Your task to perform on an android device: Turn off the flashlight Image 0: 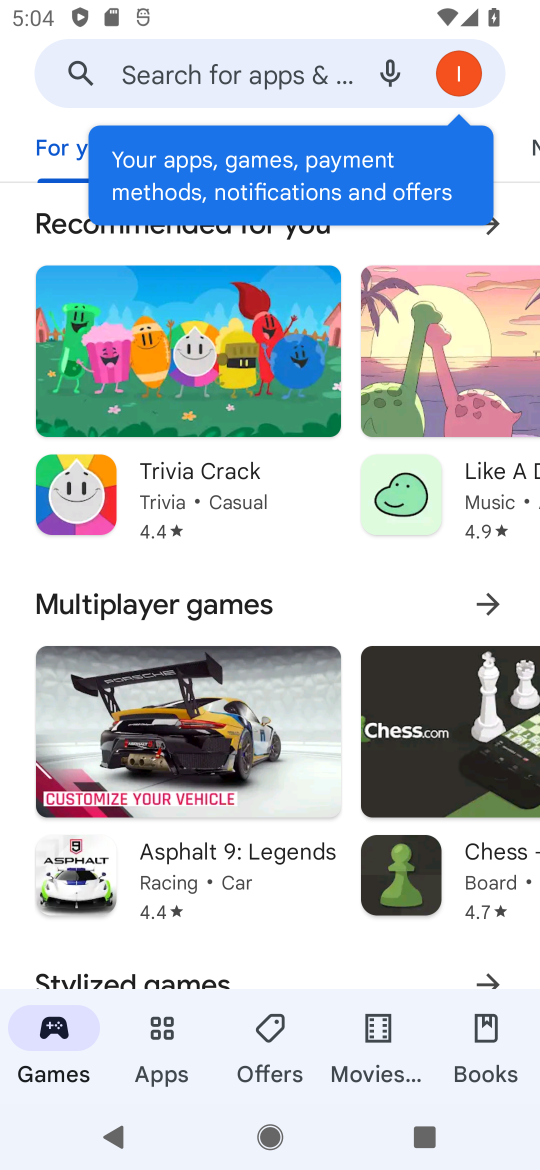
Step 0: press home button
Your task to perform on an android device: Turn off the flashlight Image 1: 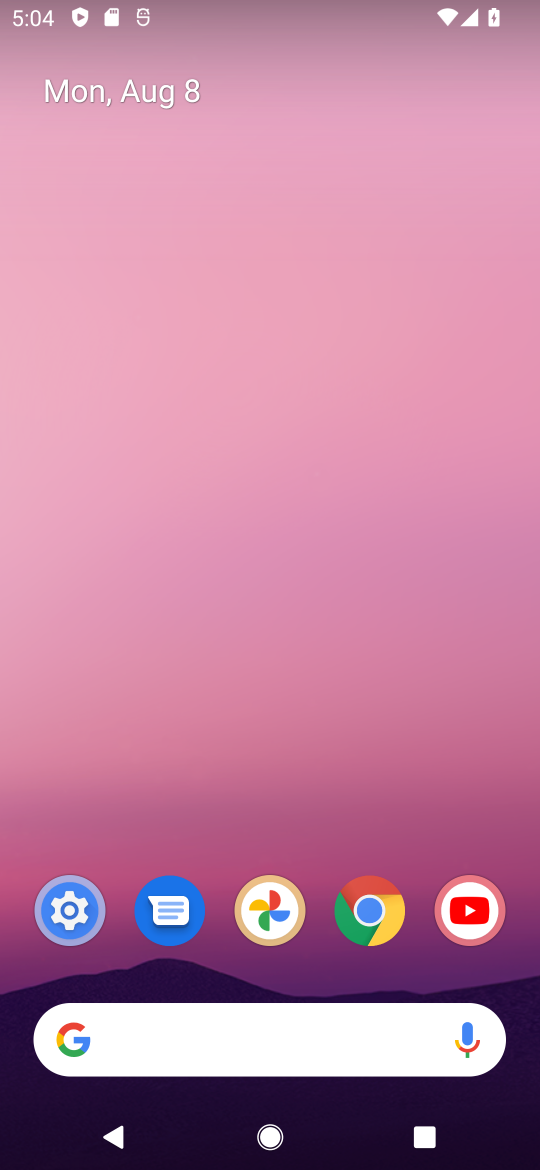
Step 1: drag from (204, 1030) to (434, 373)
Your task to perform on an android device: Turn off the flashlight Image 2: 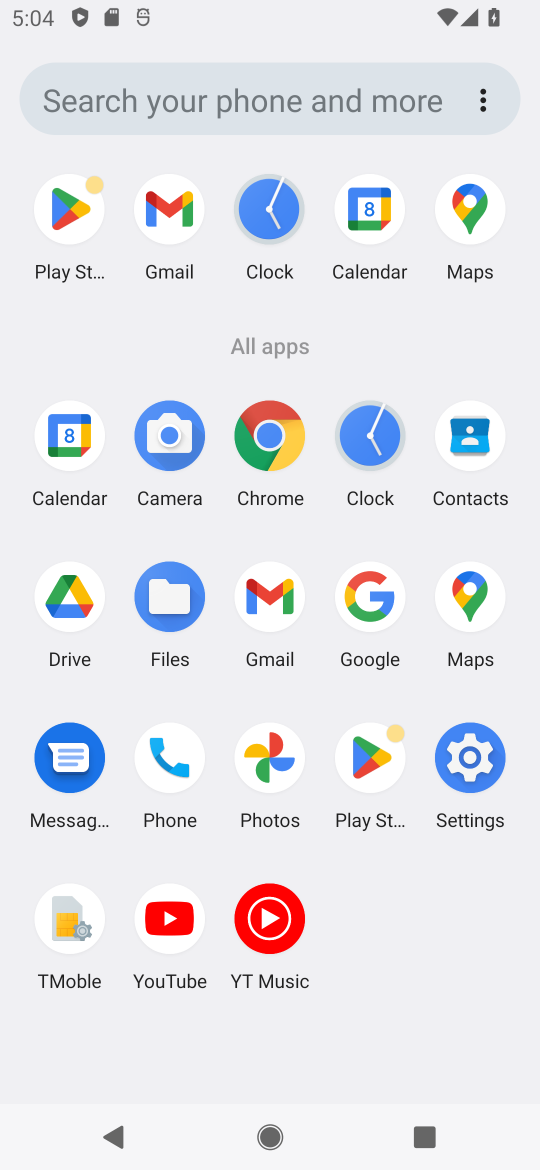
Step 2: click (471, 762)
Your task to perform on an android device: Turn off the flashlight Image 3: 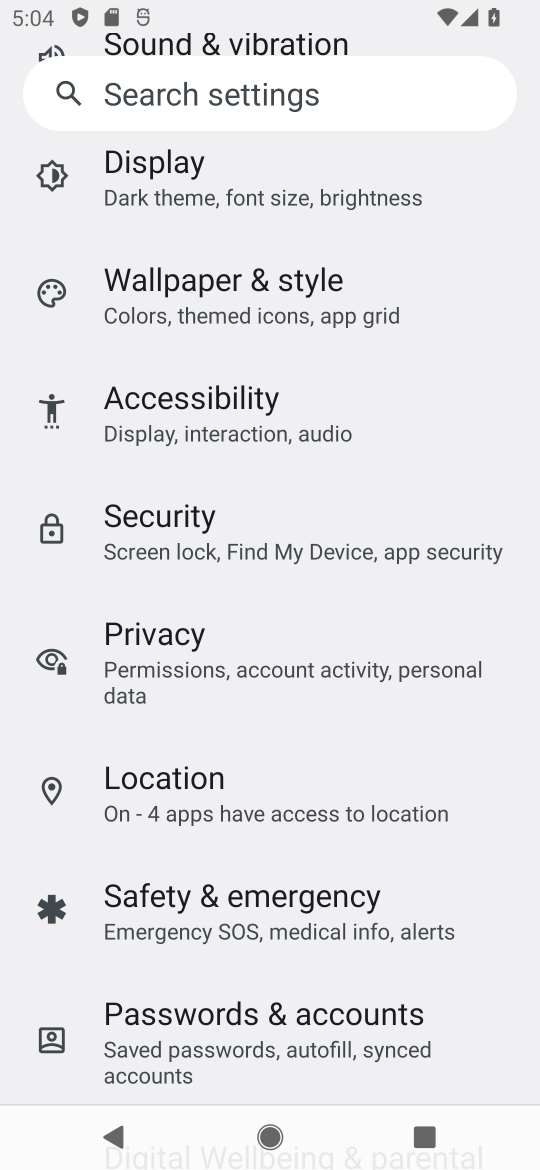
Step 3: drag from (291, 232) to (305, 820)
Your task to perform on an android device: Turn off the flashlight Image 4: 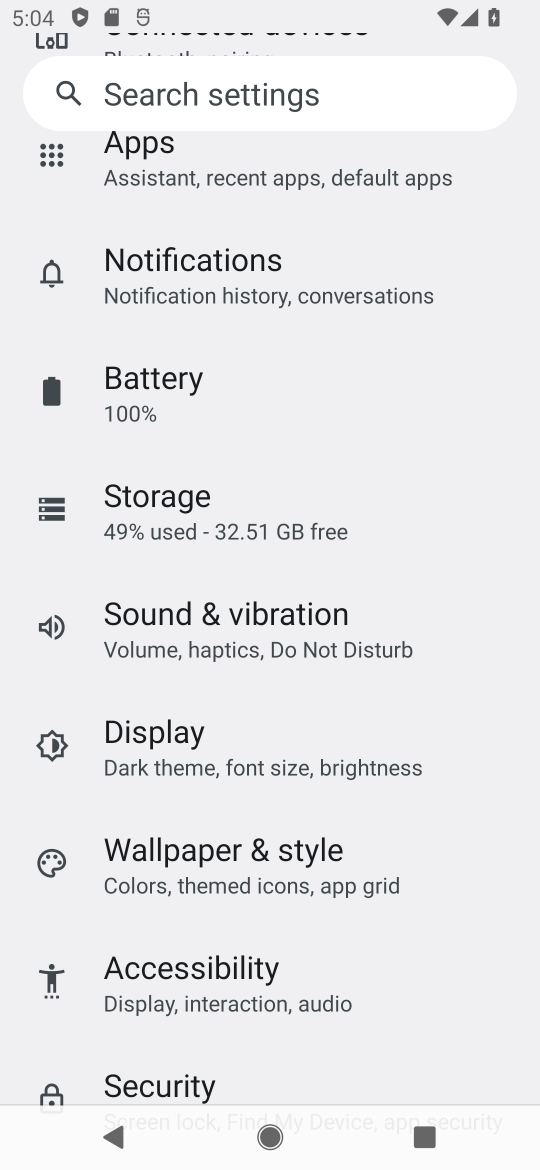
Step 4: drag from (273, 330) to (296, 671)
Your task to perform on an android device: Turn off the flashlight Image 5: 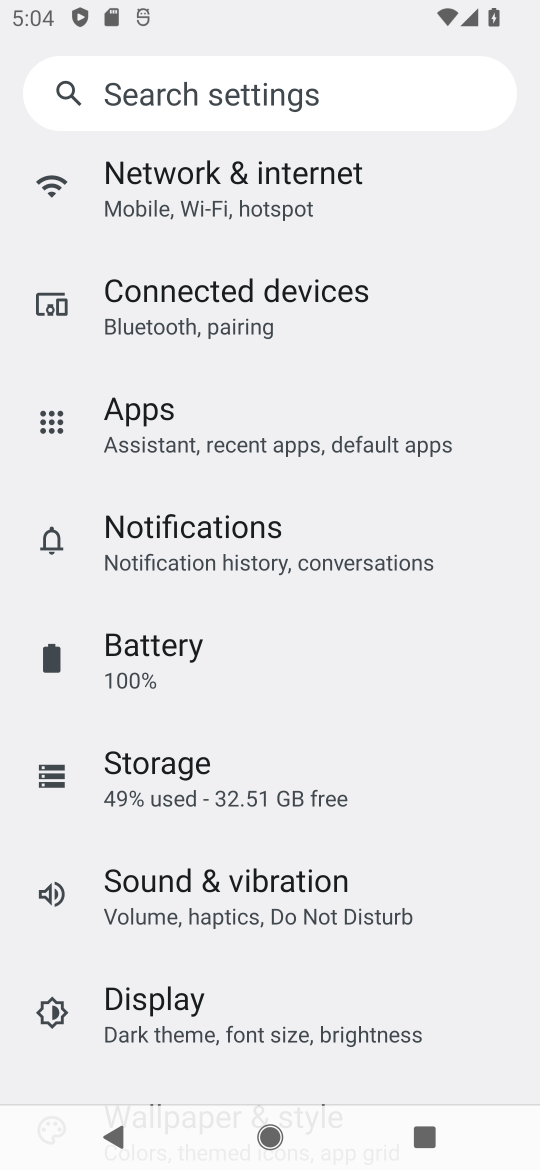
Step 5: click (253, 322)
Your task to perform on an android device: Turn off the flashlight Image 6: 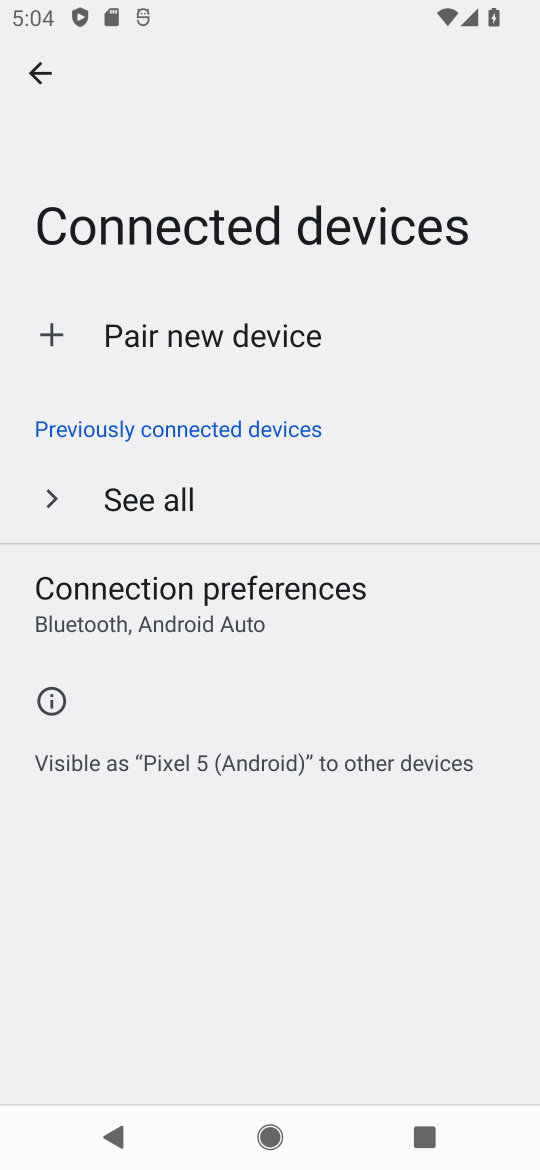
Step 6: click (271, 597)
Your task to perform on an android device: Turn off the flashlight Image 7: 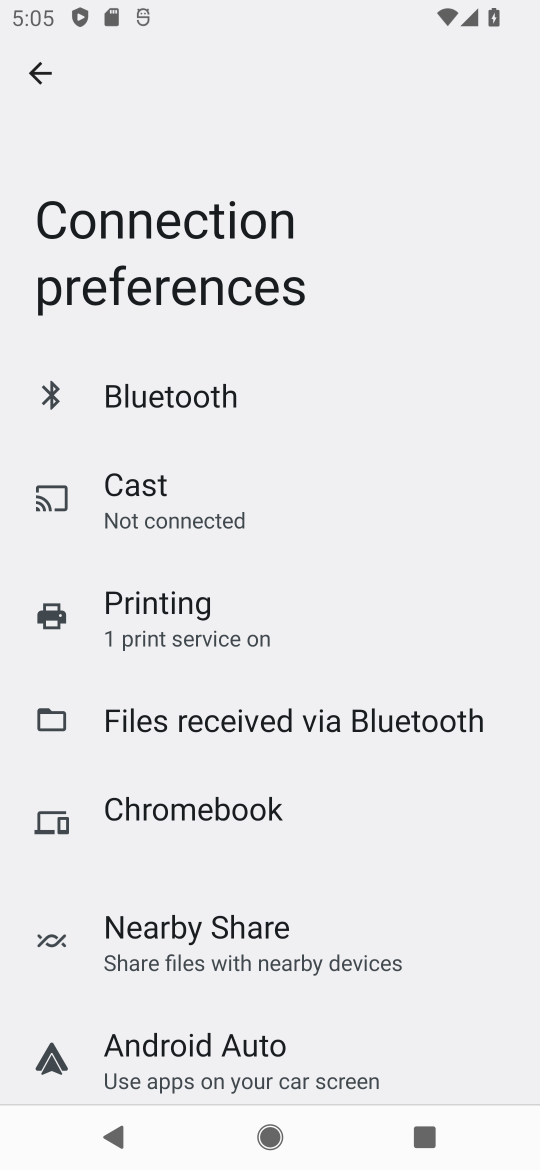
Step 7: press back button
Your task to perform on an android device: Turn off the flashlight Image 8: 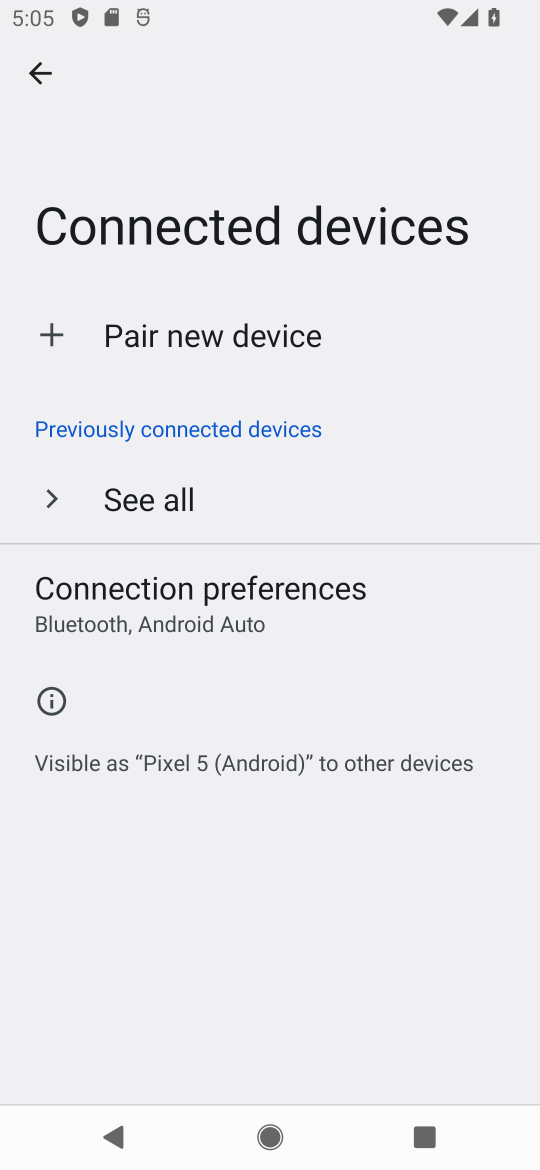
Step 8: press back button
Your task to perform on an android device: Turn off the flashlight Image 9: 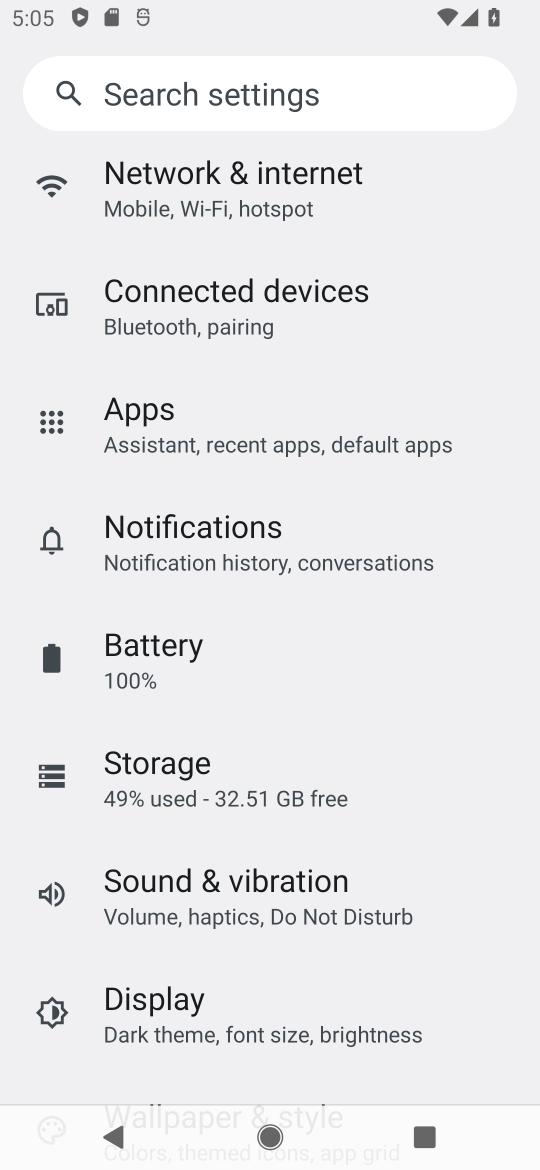
Step 9: click (240, 191)
Your task to perform on an android device: Turn off the flashlight Image 10: 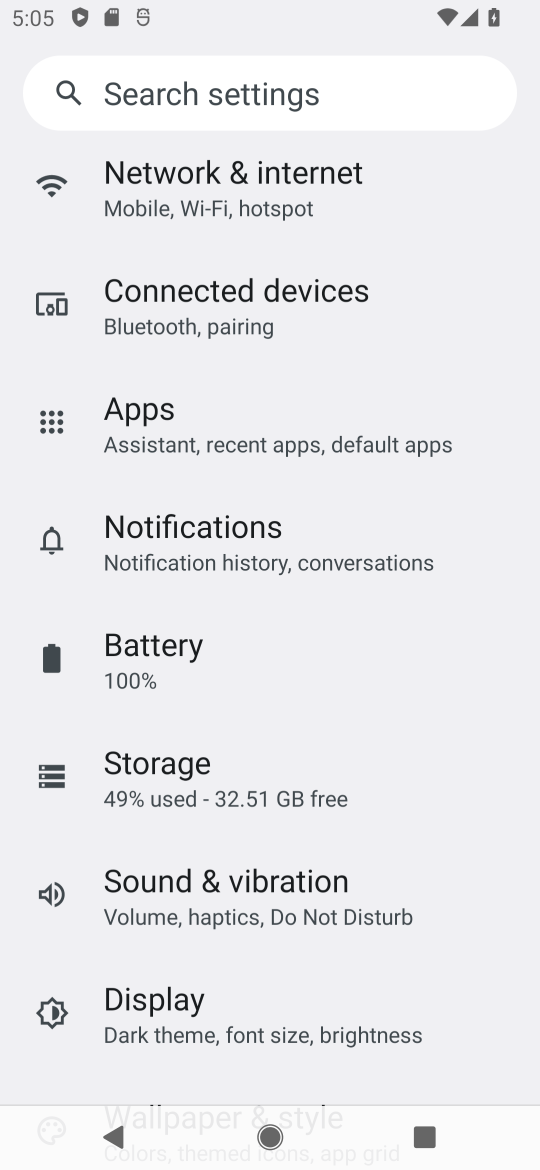
Step 10: click (228, 459)
Your task to perform on an android device: Turn off the flashlight Image 11: 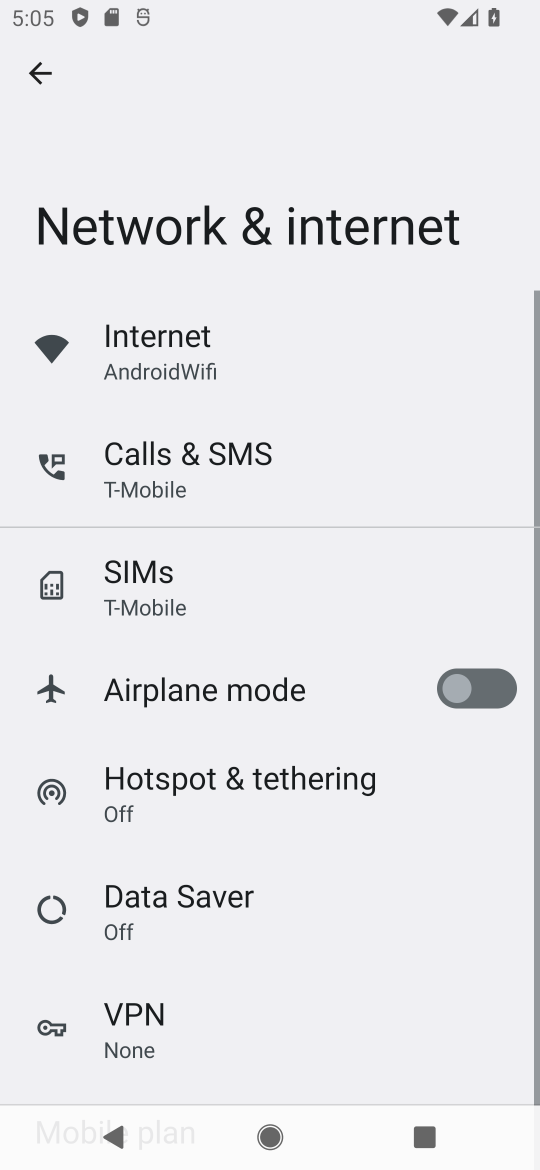
Step 11: press back button
Your task to perform on an android device: Turn off the flashlight Image 12: 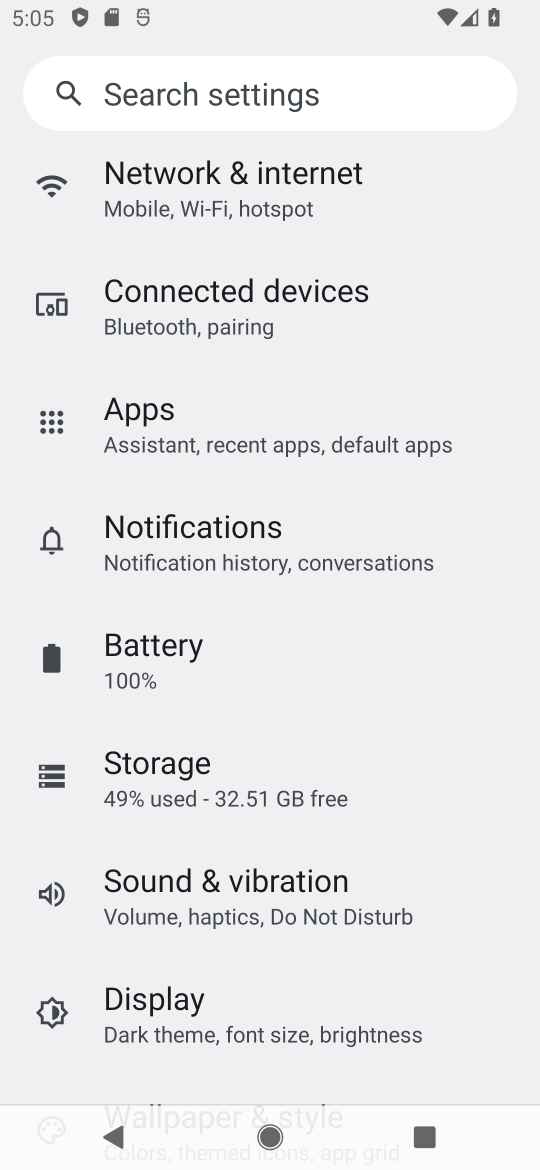
Step 12: click (251, 439)
Your task to perform on an android device: Turn off the flashlight Image 13: 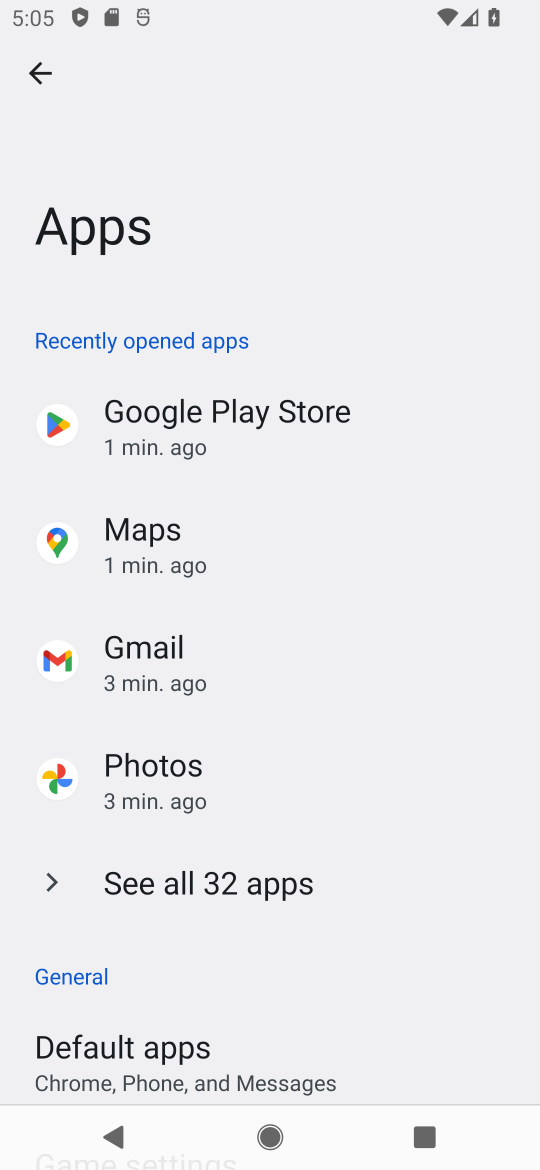
Step 13: drag from (323, 883) to (374, 673)
Your task to perform on an android device: Turn off the flashlight Image 14: 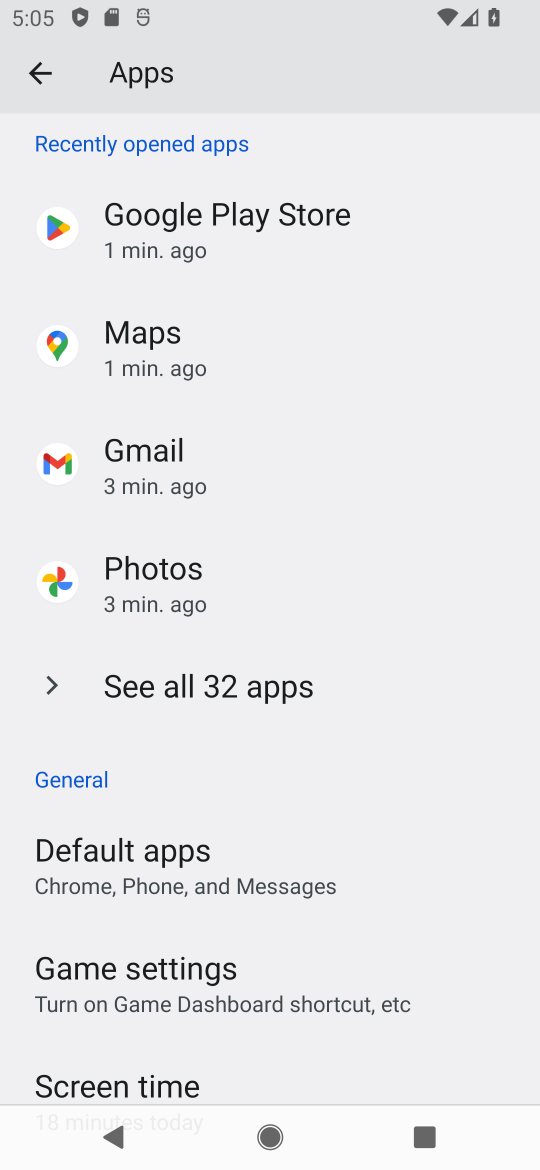
Step 14: drag from (318, 904) to (399, 745)
Your task to perform on an android device: Turn off the flashlight Image 15: 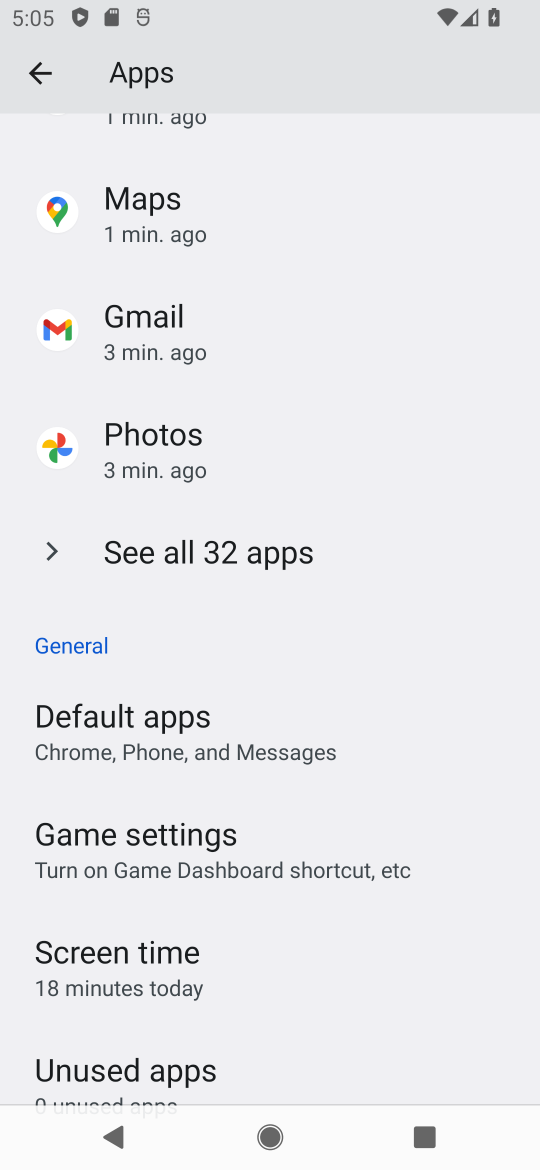
Step 15: drag from (306, 931) to (357, 738)
Your task to perform on an android device: Turn off the flashlight Image 16: 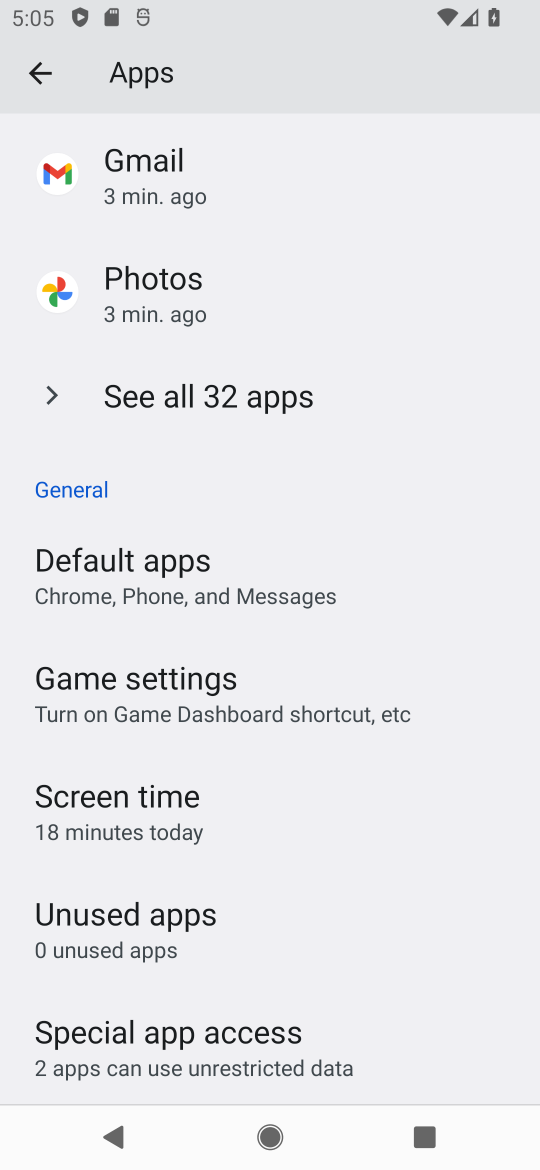
Step 16: drag from (250, 944) to (346, 770)
Your task to perform on an android device: Turn off the flashlight Image 17: 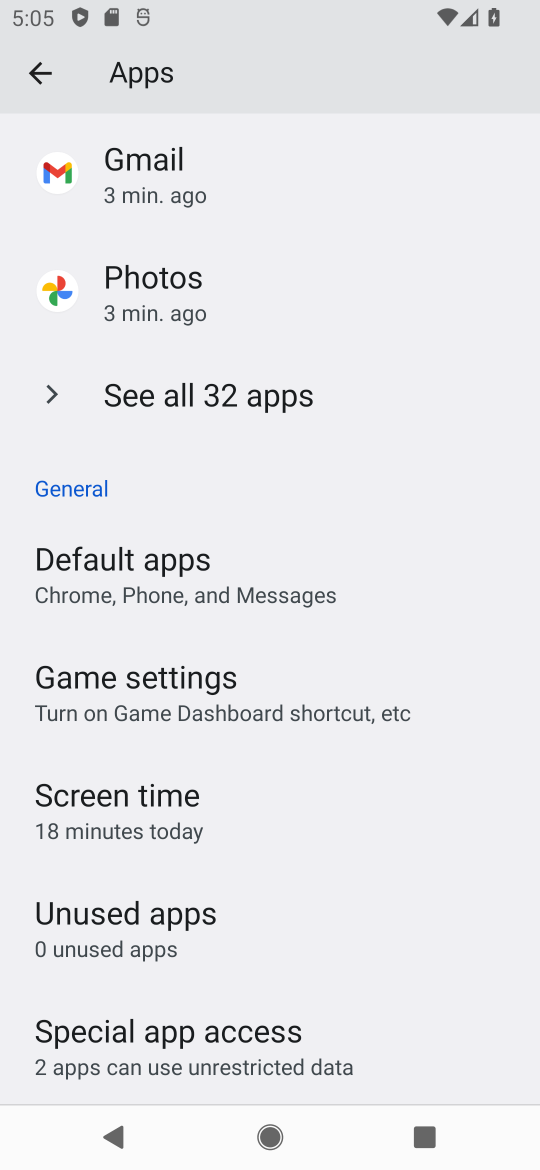
Step 17: click (236, 596)
Your task to perform on an android device: Turn off the flashlight Image 18: 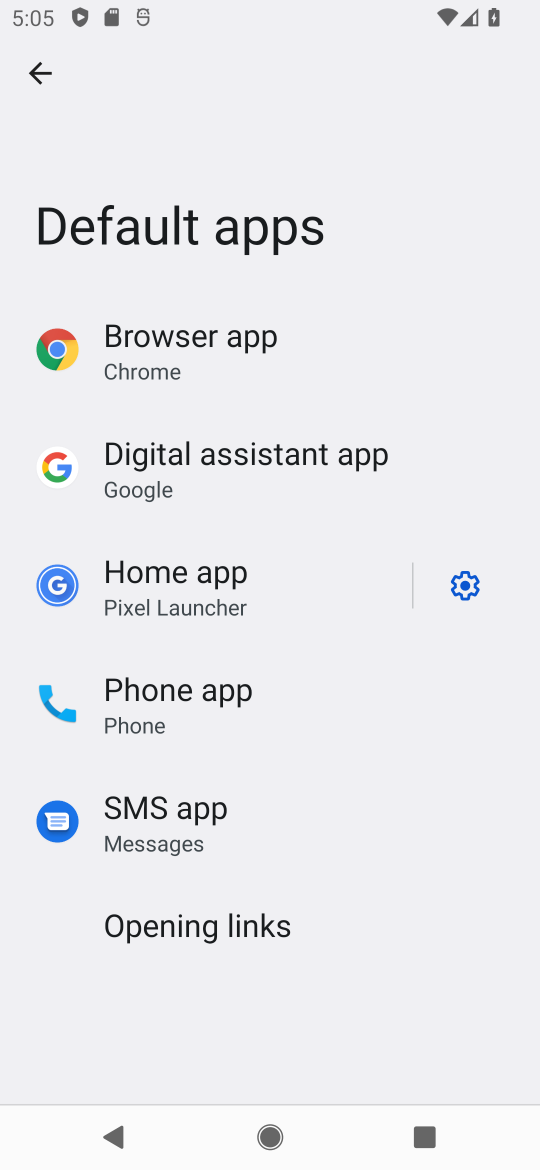
Step 18: press back button
Your task to perform on an android device: Turn off the flashlight Image 19: 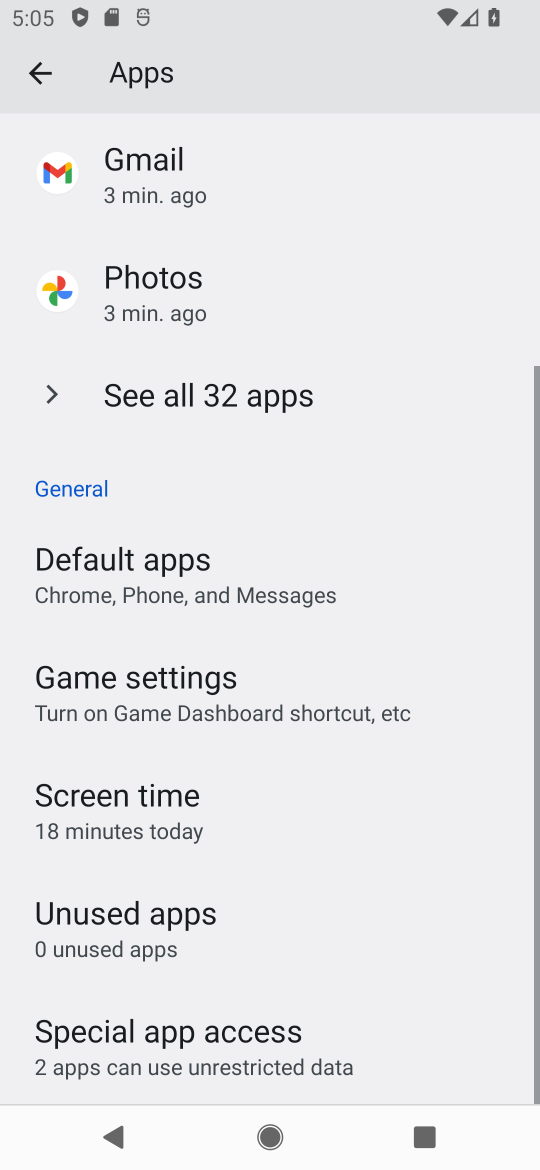
Step 19: drag from (236, 978) to (274, 784)
Your task to perform on an android device: Turn off the flashlight Image 20: 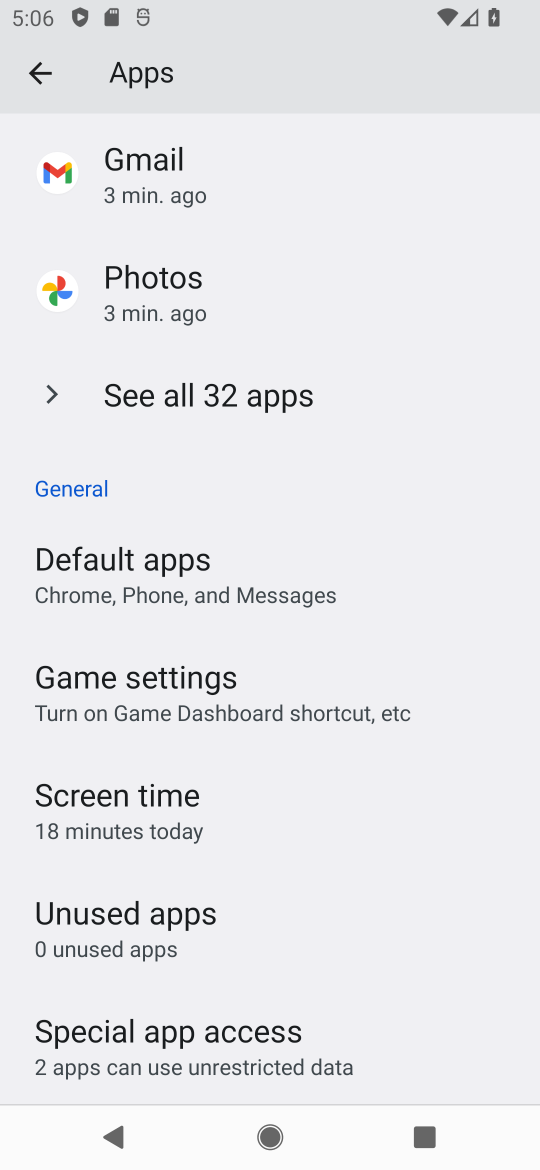
Step 20: press back button
Your task to perform on an android device: Turn off the flashlight Image 21: 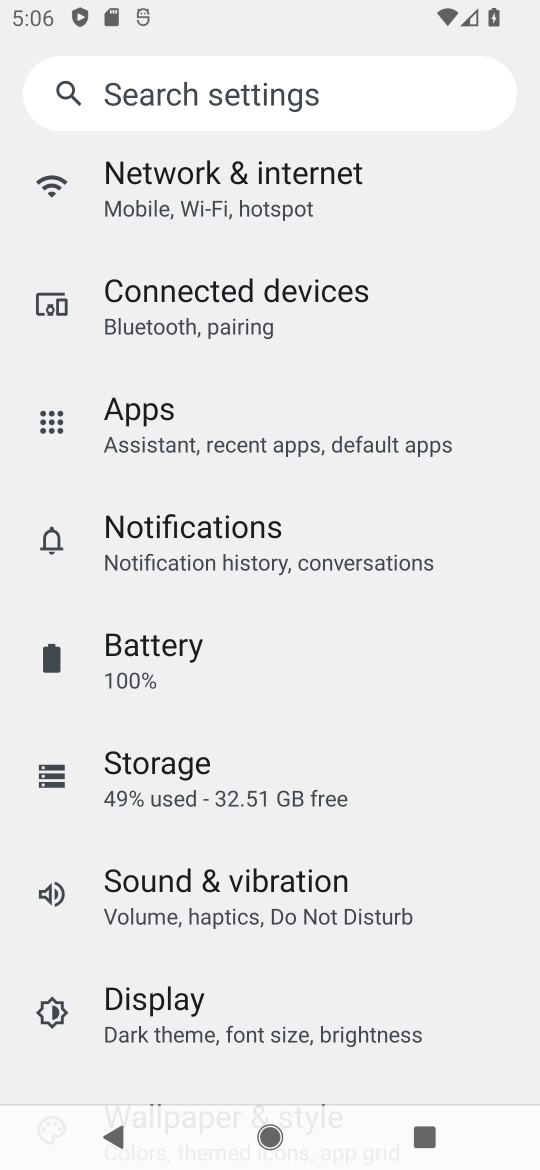
Step 21: click (282, 104)
Your task to perform on an android device: Turn off the flashlight Image 22: 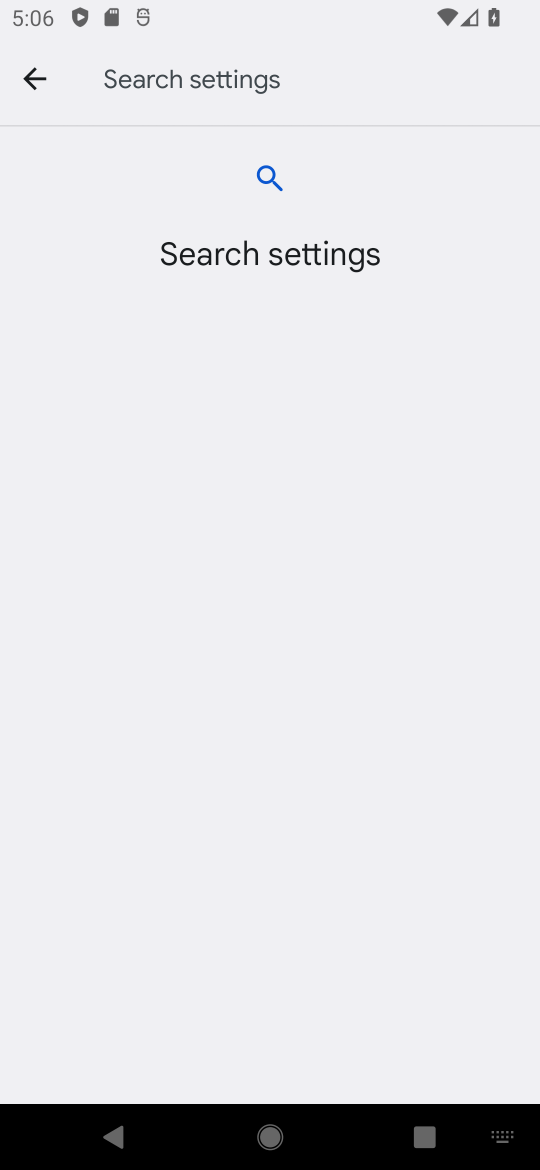
Step 22: type "flashlight"
Your task to perform on an android device: Turn off the flashlight Image 23: 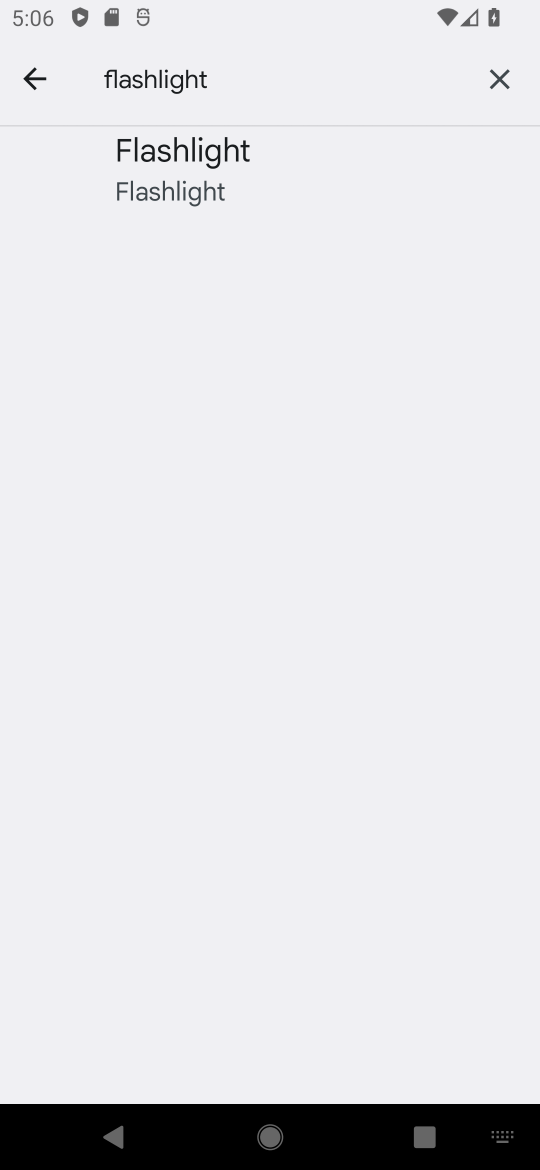
Step 23: click (194, 194)
Your task to perform on an android device: Turn off the flashlight Image 24: 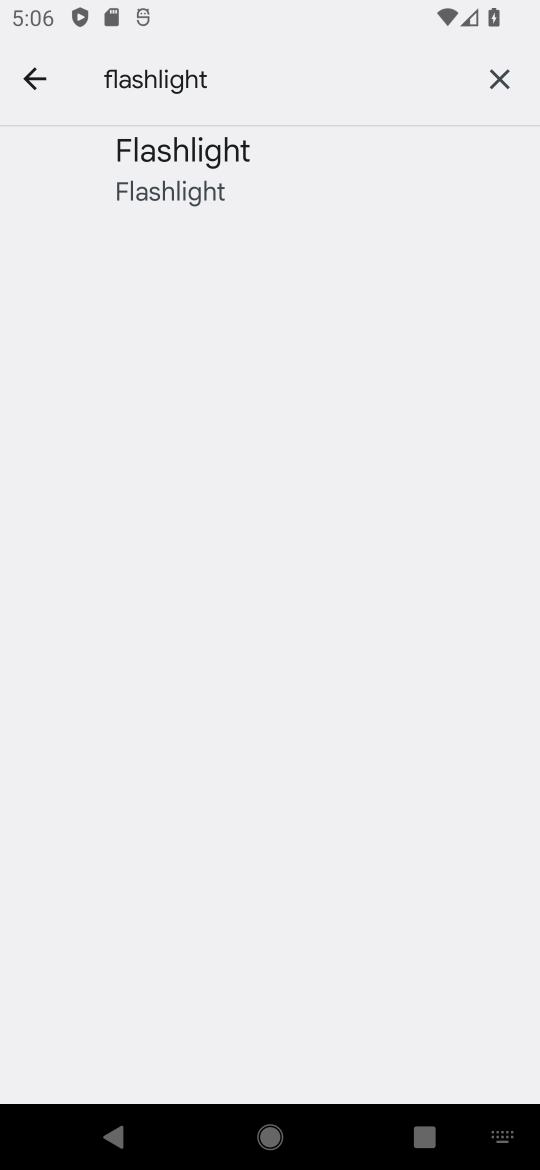
Step 24: click (195, 157)
Your task to perform on an android device: Turn off the flashlight Image 25: 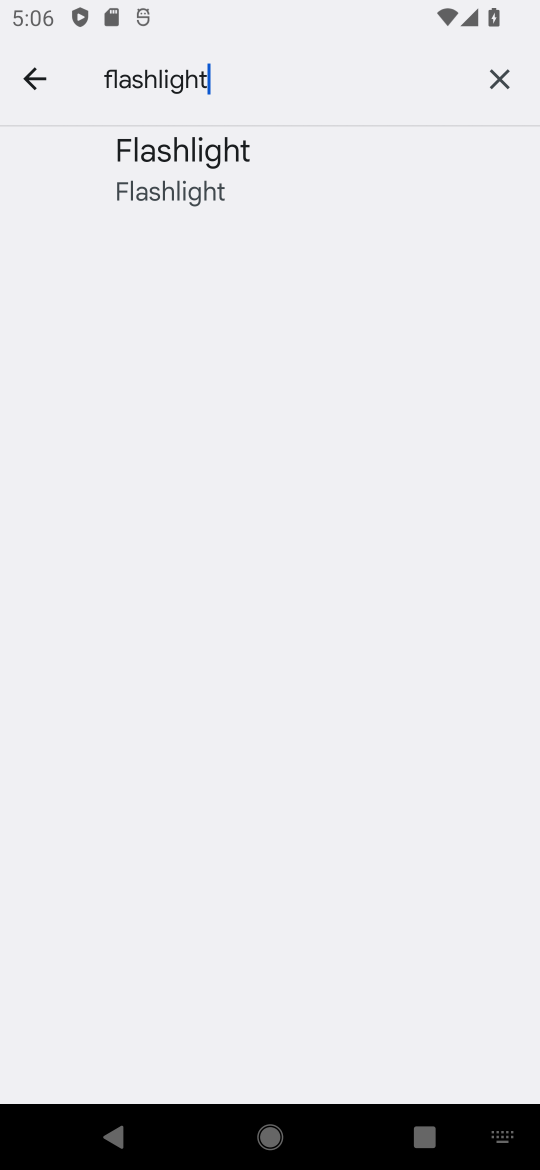
Step 25: click (195, 157)
Your task to perform on an android device: Turn off the flashlight Image 26: 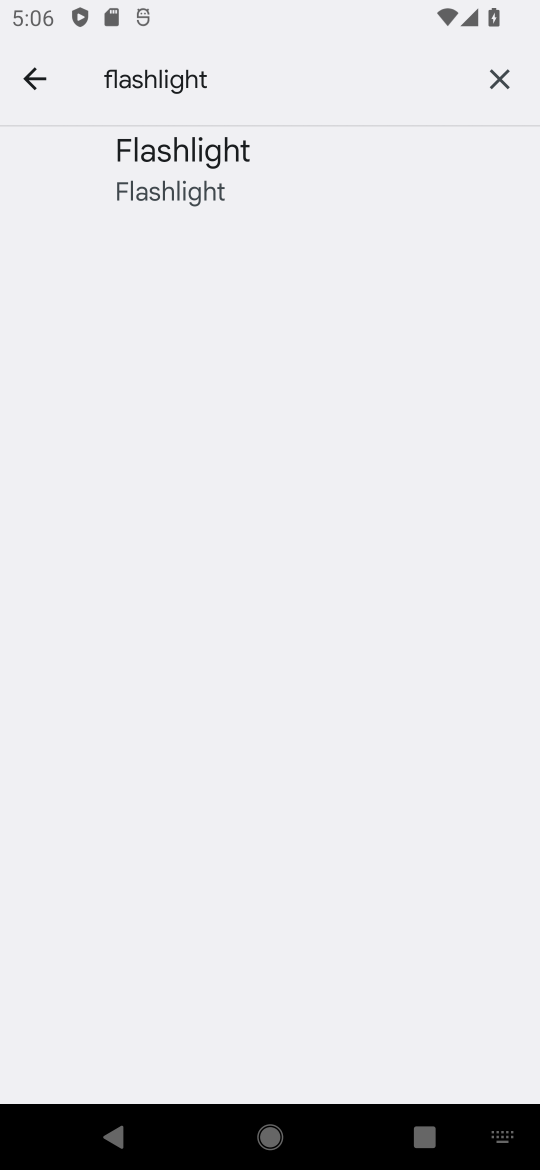
Step 26: click (234, 183)
Your task to perform on an android device: Turn off the flashlight Image 27: 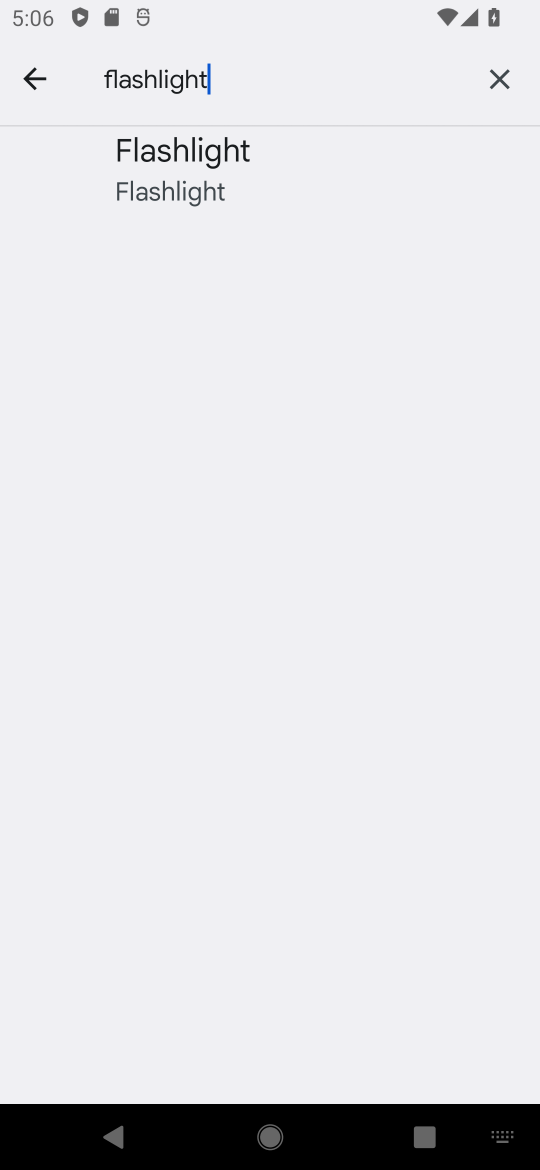
Step 27: click (488, 176)
Your task to perform on an android device: Turn off the flashlight Image 28: 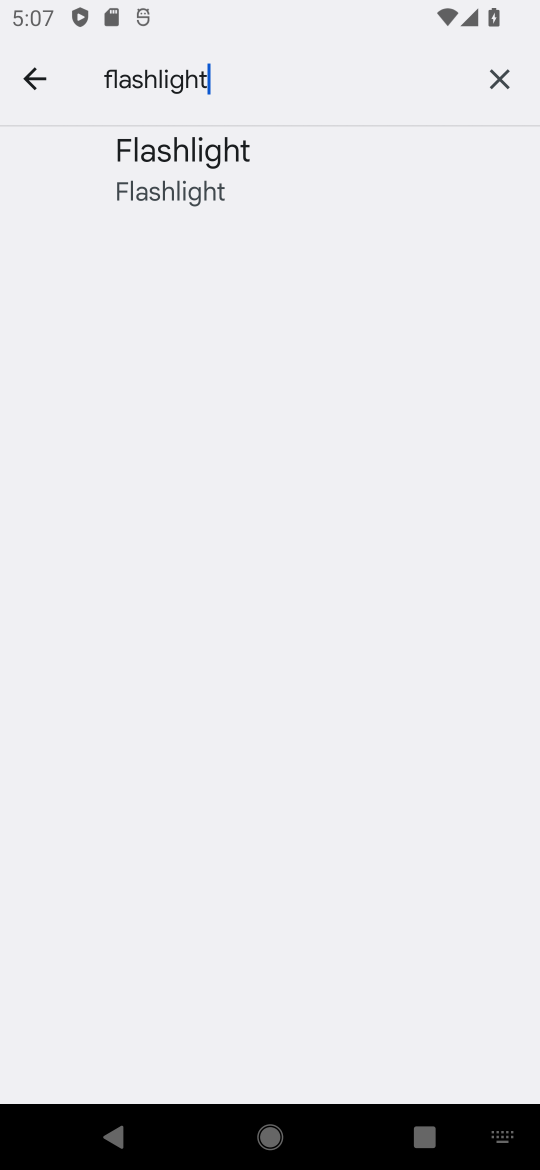
Step 28: task complete